Your task to perform on an android device: Open Youtube and go to "Your channel" Image 0: 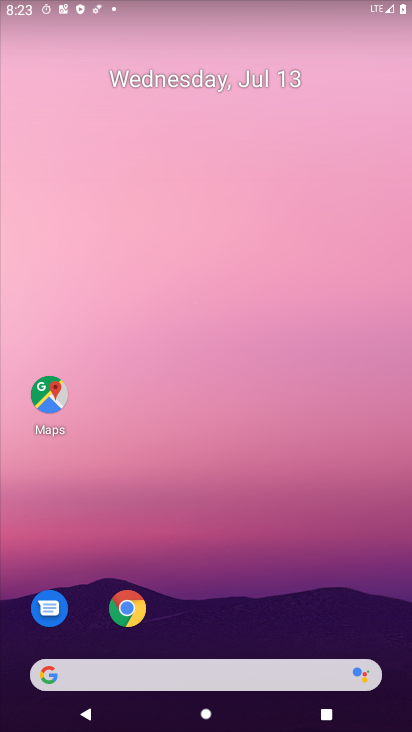
Step 0: drag from (278, 569) to (256, 132)
Your task to perform on an android device: Open Youtube and go to "Your channel" Image 1: 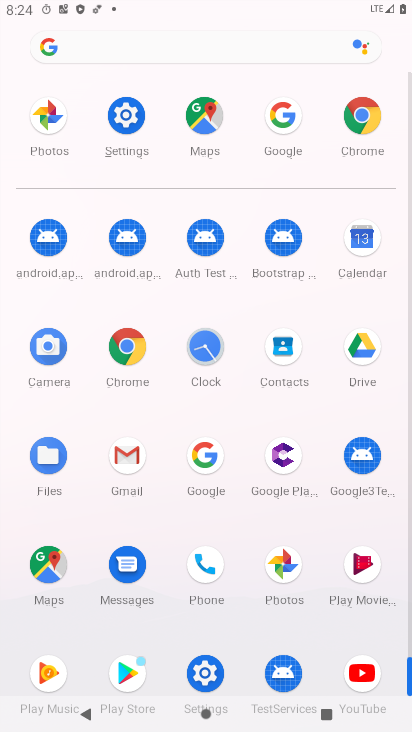
Step 1: click (372, 675)
Your task to perform on an android device: Open Youtube and go to "Your channel" Image 2: 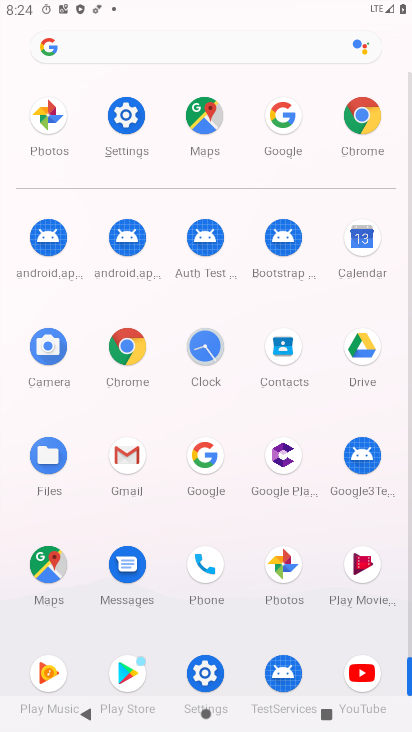
Step 2: click (372, 676)
Your task to perform on an android device: Open Youtube and go to "Your channel" Image 3: 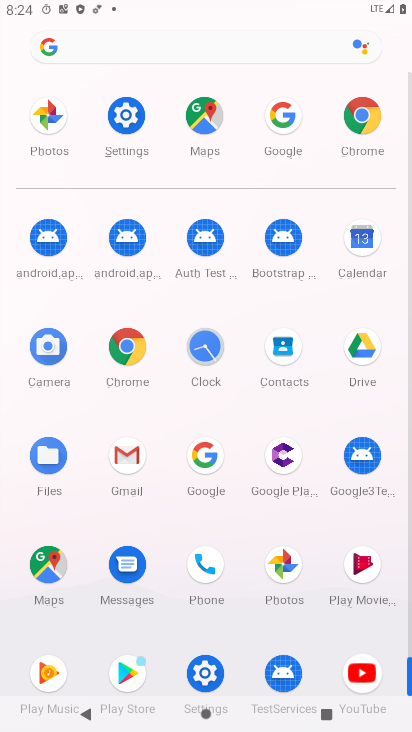
Step 3: click (372, 677)
Your task to perform on an android device: Open Youtube and go to "Your channel" Image 4: 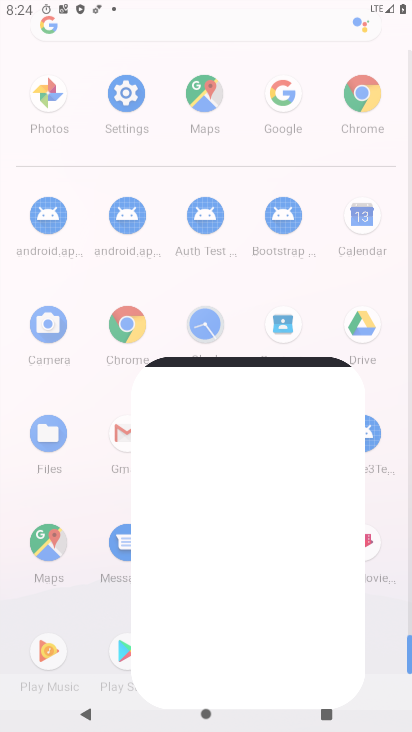
Step 4: click (372, 677)
Your task to perform on an android device: Open Youtube and go to "Your channel" Image 5: 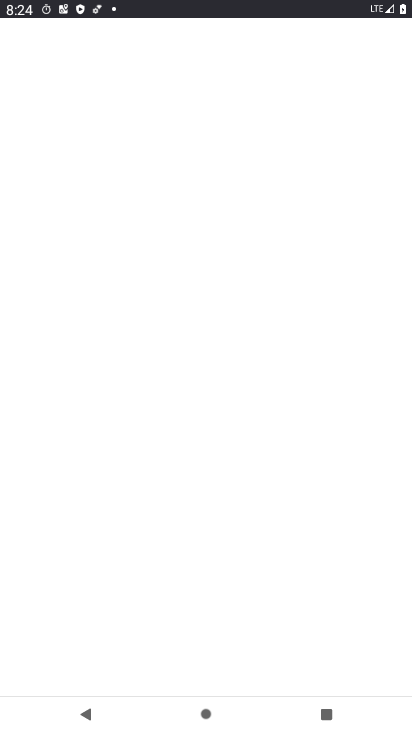
Step 5: click (370, 677)
Your task to perform on an android device: Open Youtube and go to "Your channel" Image 6: 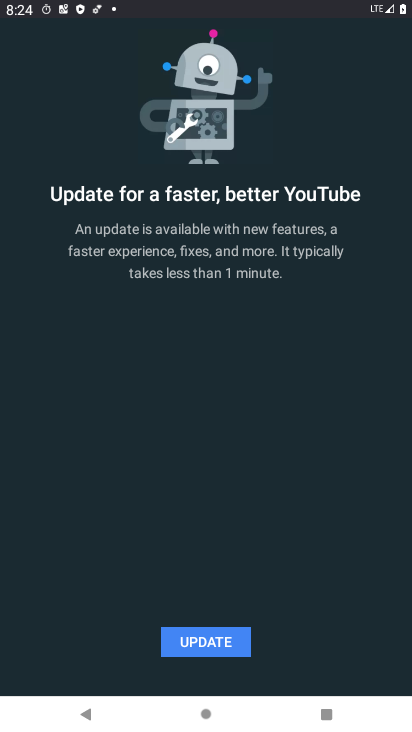
Step 6: task complete